Your task to perform on an android device: Do I have any events this weekend? Image 0: 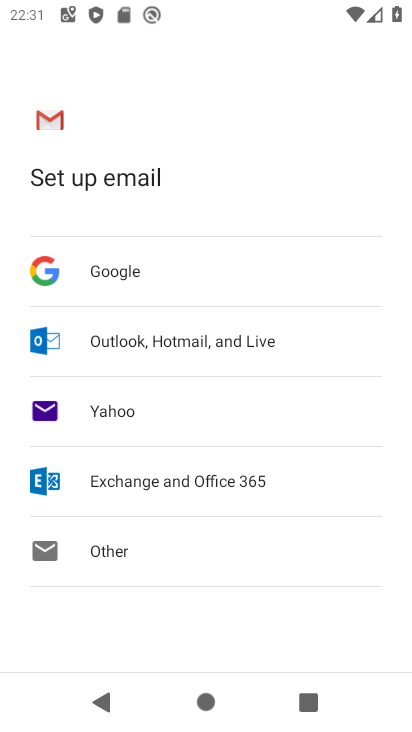
Step 0: press home button
Your task to perform on an android device: Do I have any events this weekend? Image 1: 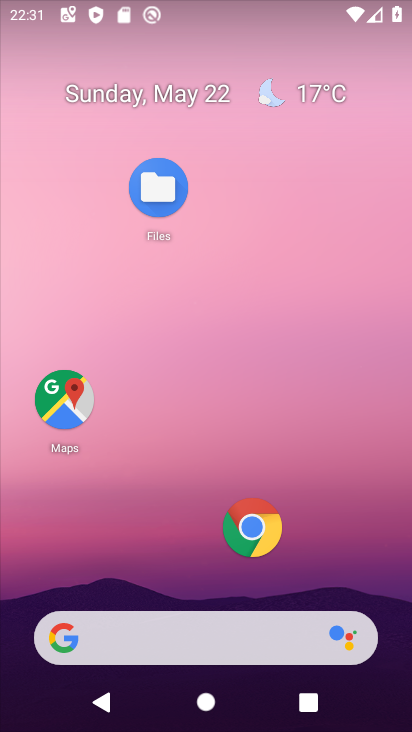
Step 1: drag from (332, 529) to (241, 58)
Your task to perform on an android device: Do I have any events this weekend? Image 2: 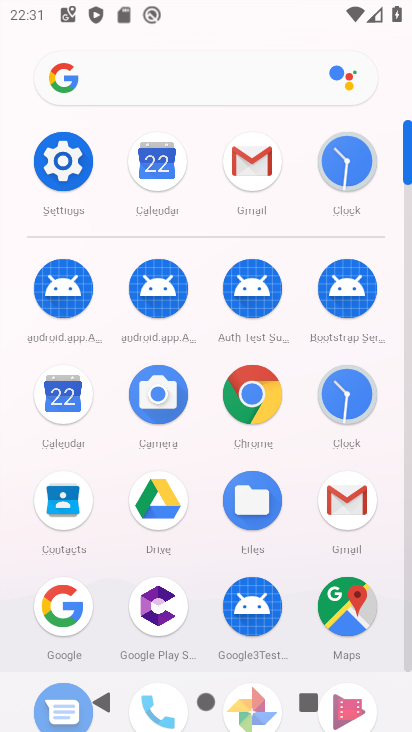
Step 2: click (54, 380)
Your task to perform on an android device: Do I have any events this weekend? Image 3: 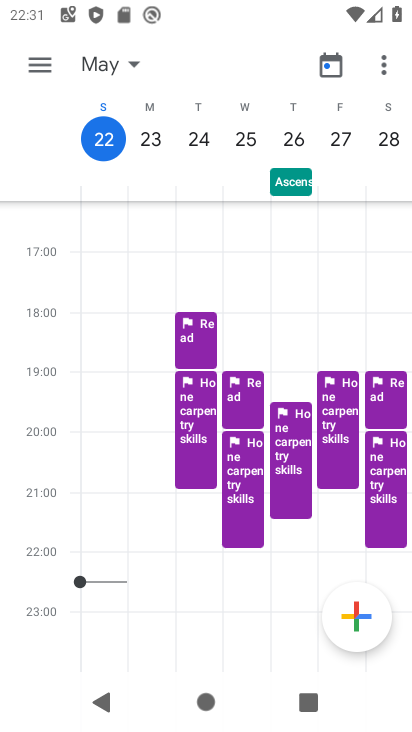
Step 3: task complete